Your task to perform on an android device: What's on my calendar today? Image 0: 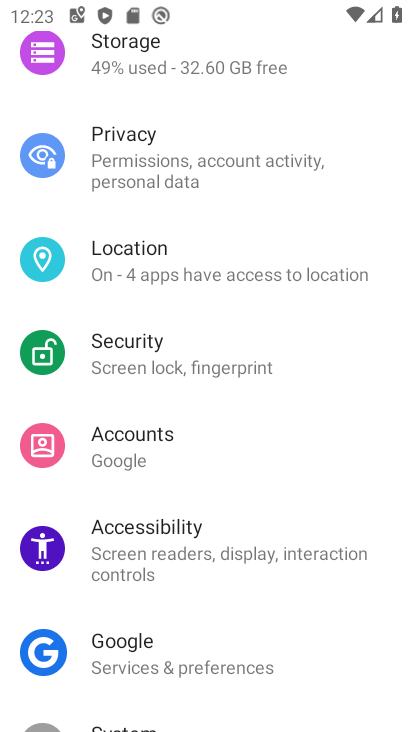
Step 0: press home button
Your task to perform on an android device: What's on my calendar today? Image 1: 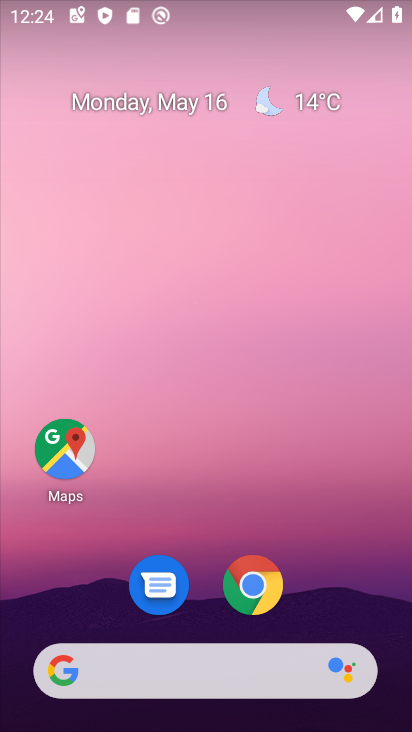
Step 1: drag from (212, 499) to (241, 29)
Your task to perform on an android device: What's on my calendar today? Image 2: 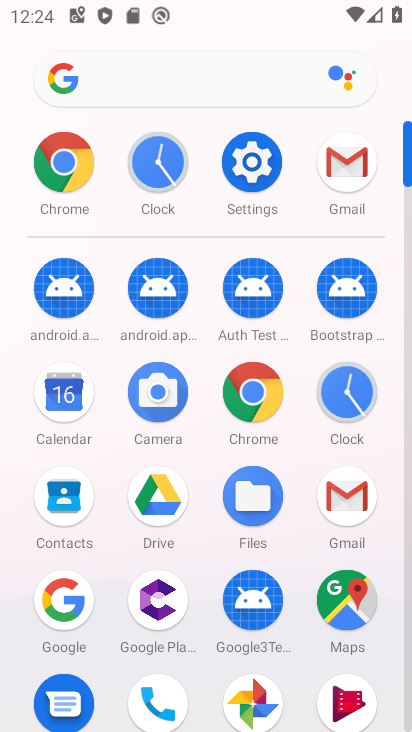
Step 2: click (68, 394)
Your task to perform on an android device: What's on my calendar today? Image 3: 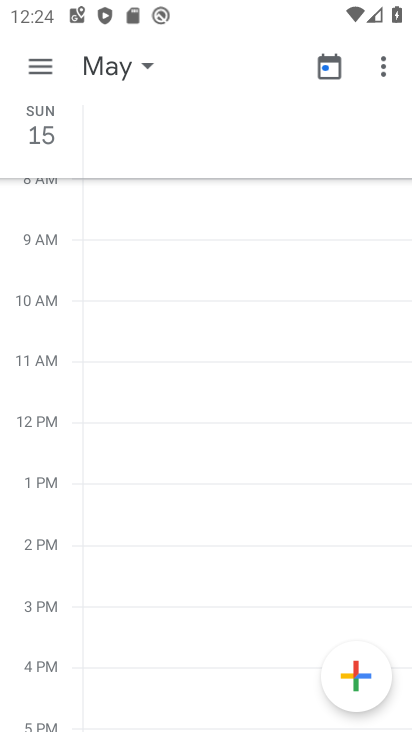
Step 3: click (41, 61)
Your task to perform on an android device: What's on my calendar today? Image 4: 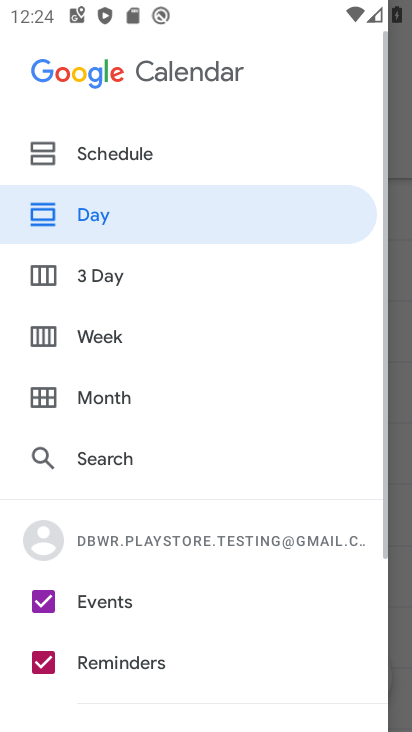
Step 4: click (88, 151)
Your task to perform on an android device: What's on my calendar today? Image 5: 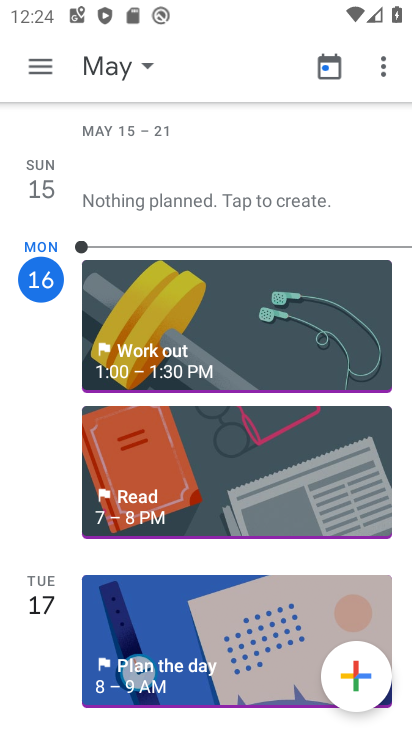
Step 5: task complete